Your task to perform on an android device: open app "Upside-Cash back on gas & food" (install if not already installed) and go to login screen Image 0: 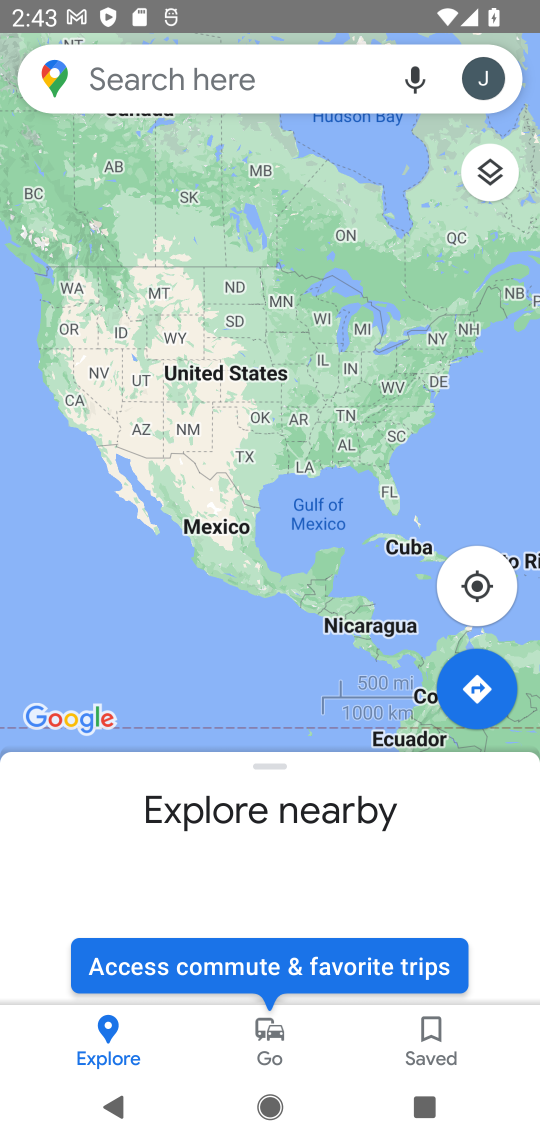
Step 0: press home button
Your task to perform on an android device: open app "Upside-Cash back on gas & food" (install if not already installed) and go to login screen Image 1: 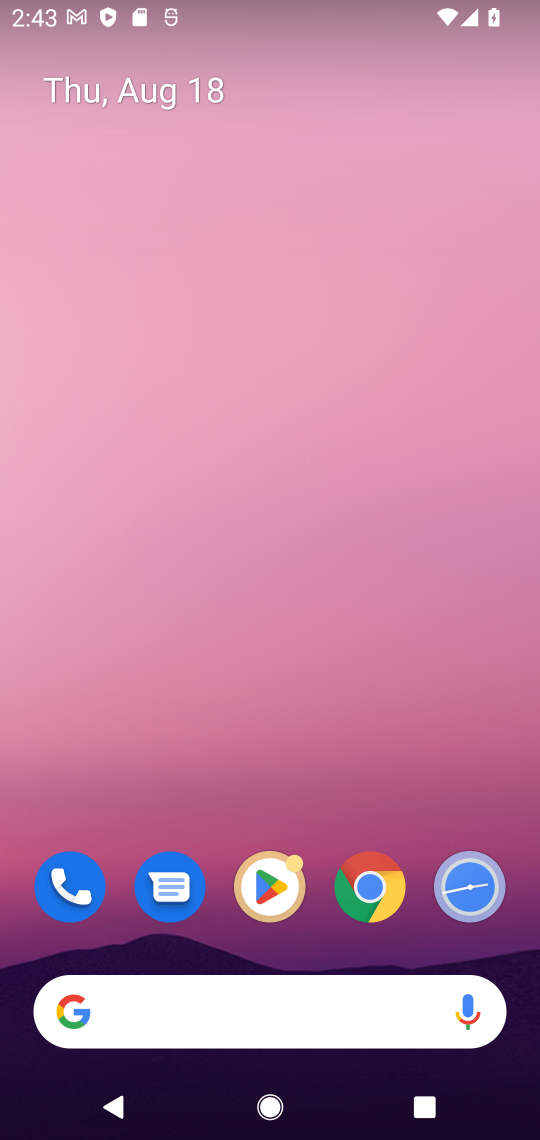
Step 1: click (259, 880)
Your task to perform on an android device: open app "Upside-Cash back on gas & food" (install if not already installed) and go to login screen Image 2: 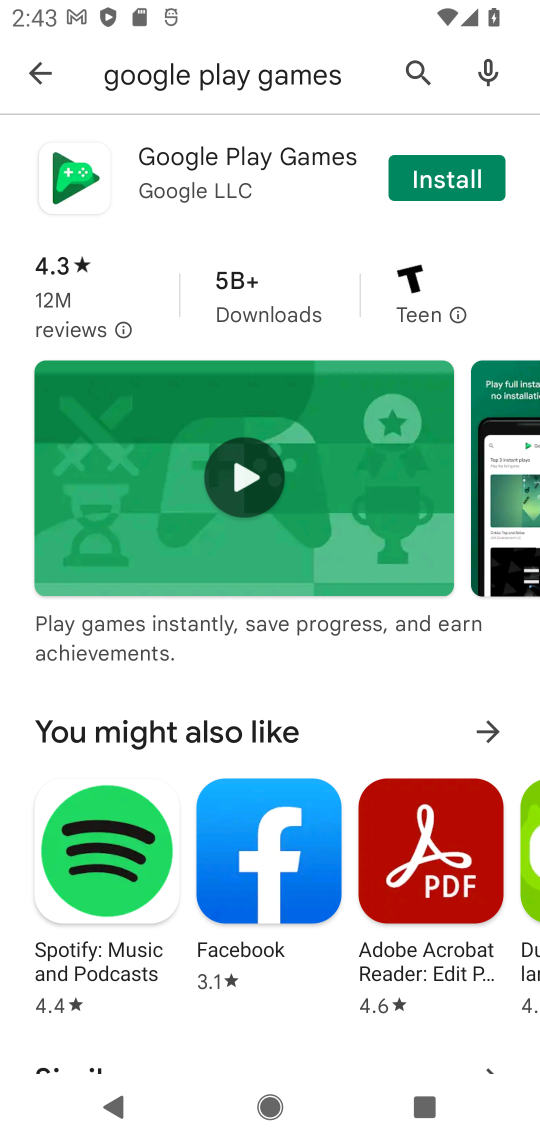
Step 2: click (416, 77)
Your task to perform on an android device: open app "Upside-Cash back on gas & food" (install if not already installed) and go to login screen Image 3: 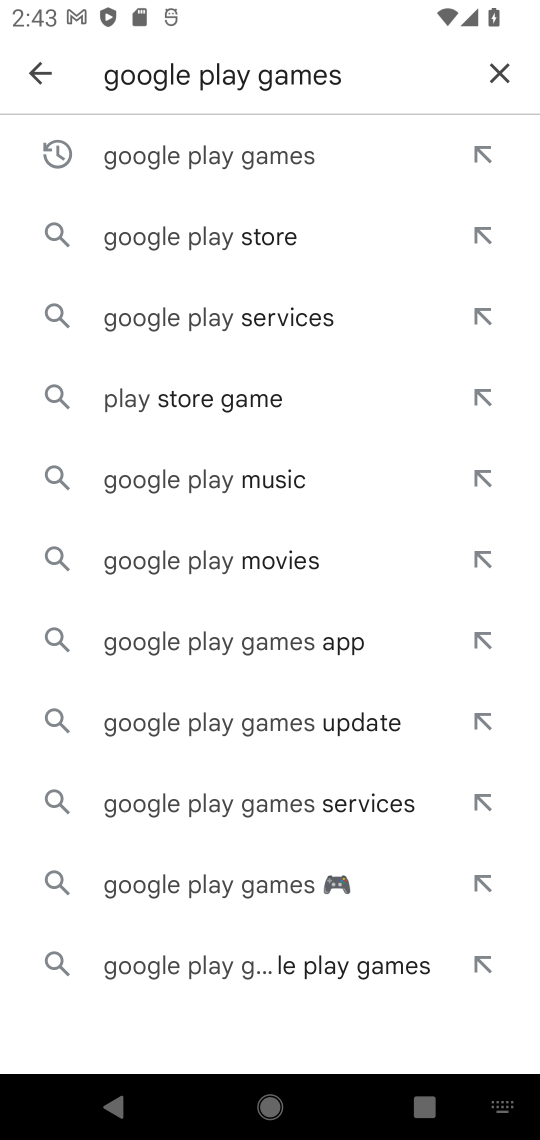
Step 3: click (496, 68)
Your task to perform on an android device: open app "Upside-Cash back on gas & food" (install if not already installed) and go to login screen Image 4: 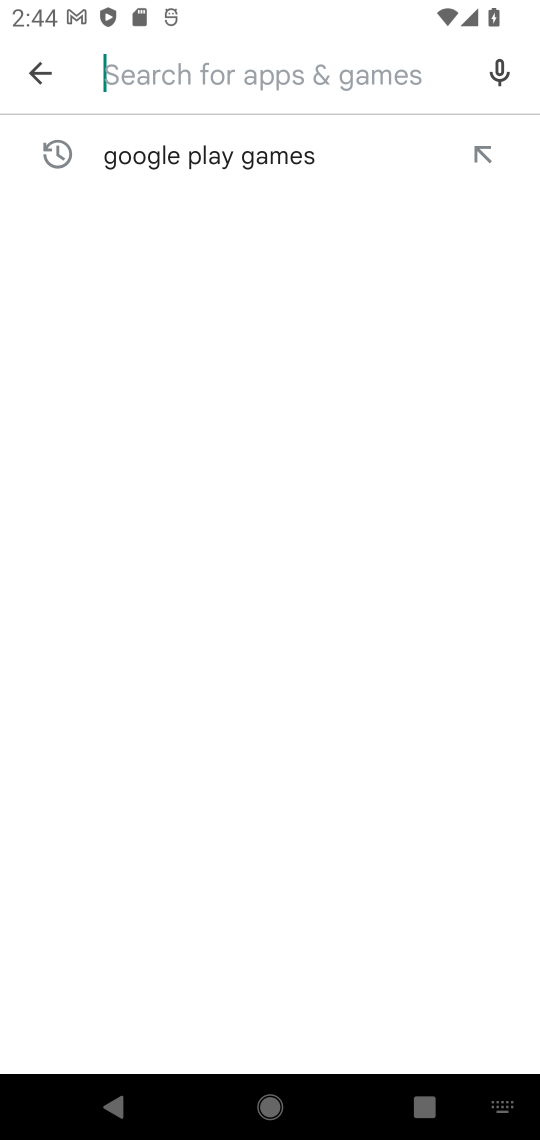
Step 4: type "Upside-Cash back on gas & food"
Your task to perform on an android device: open app "Upside-Cash back on gas & food" (install if not already installed) and go to login screen Image 5: 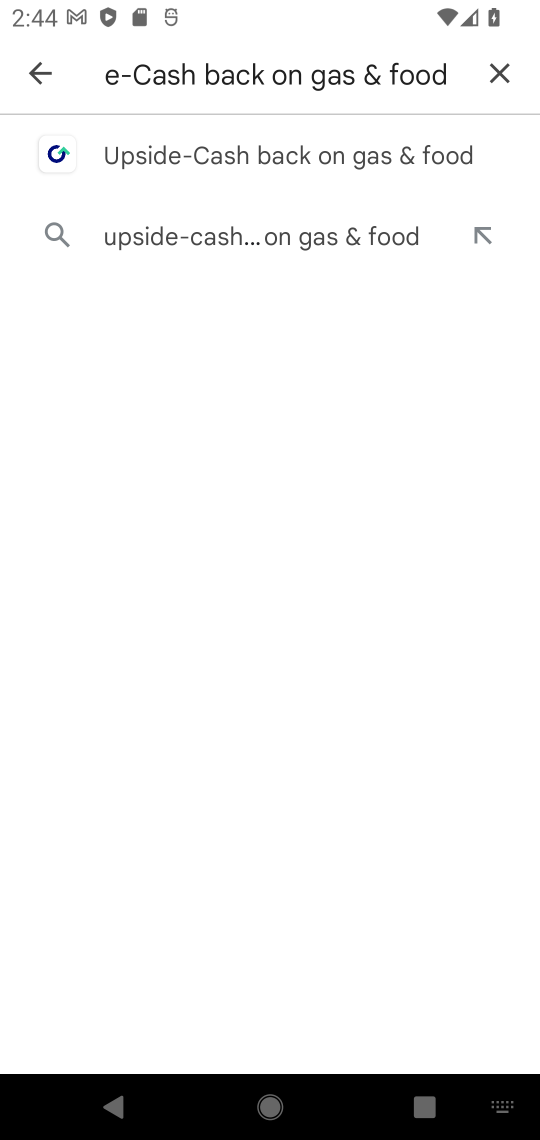
Step 5: click (129, 153)
Your task to perform on an android device: open app "Upside-Cash back on gas & food" (install if not already installed) and go to login screen Image 6: 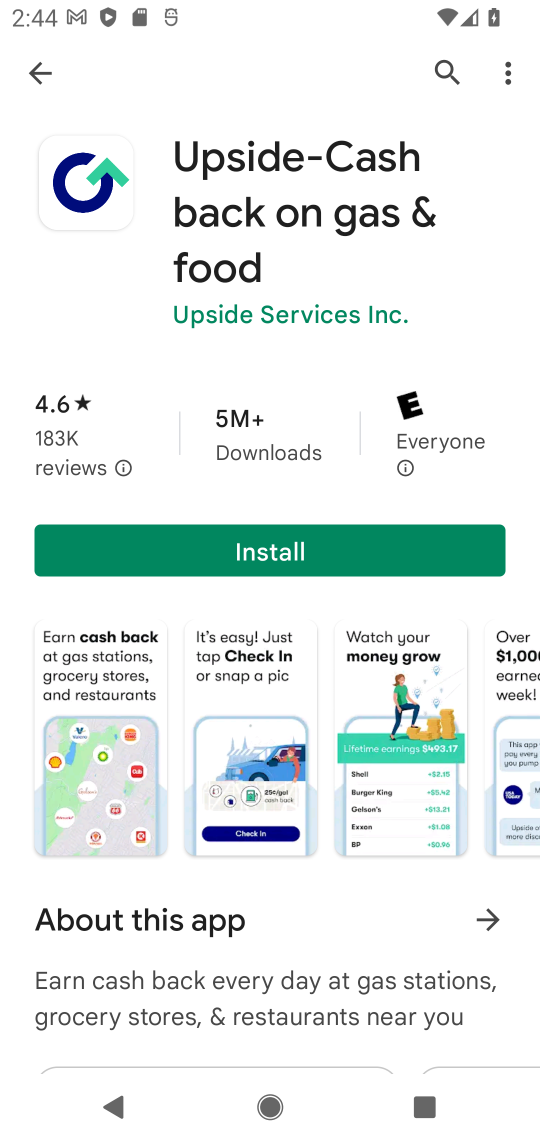
Step 6: click (247, 545)
Your task to perform on an android device: open app "Upside-Cash back on gas & food" (install if not already installed) and go to login screen Image 7: 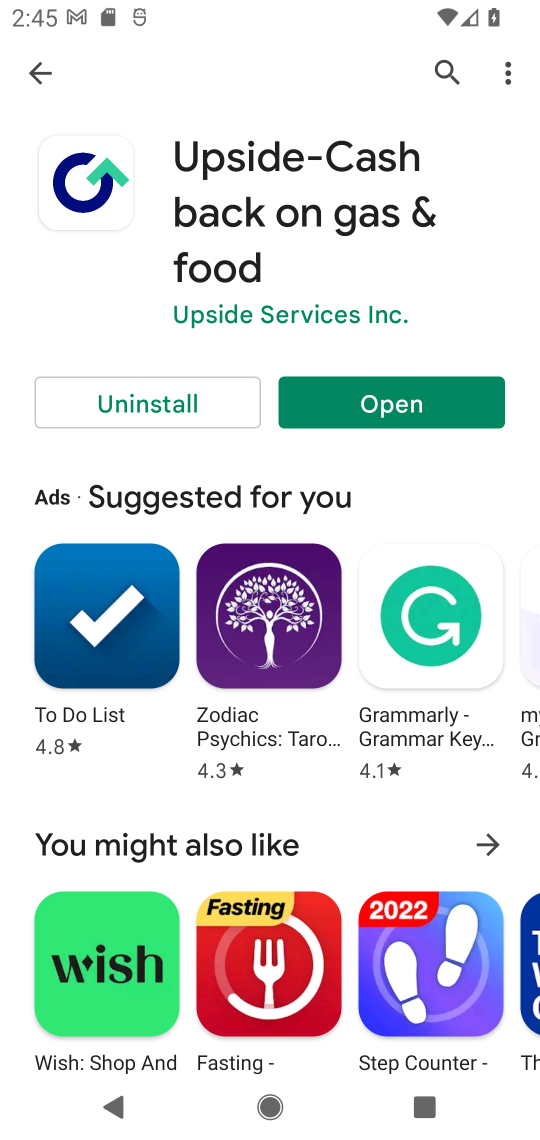
Step 7: click (341, 425)
Your task to perform on an android device: open app "Upside-Cash back on gas & food" (install if not already installed) and go to login screen Image 8: 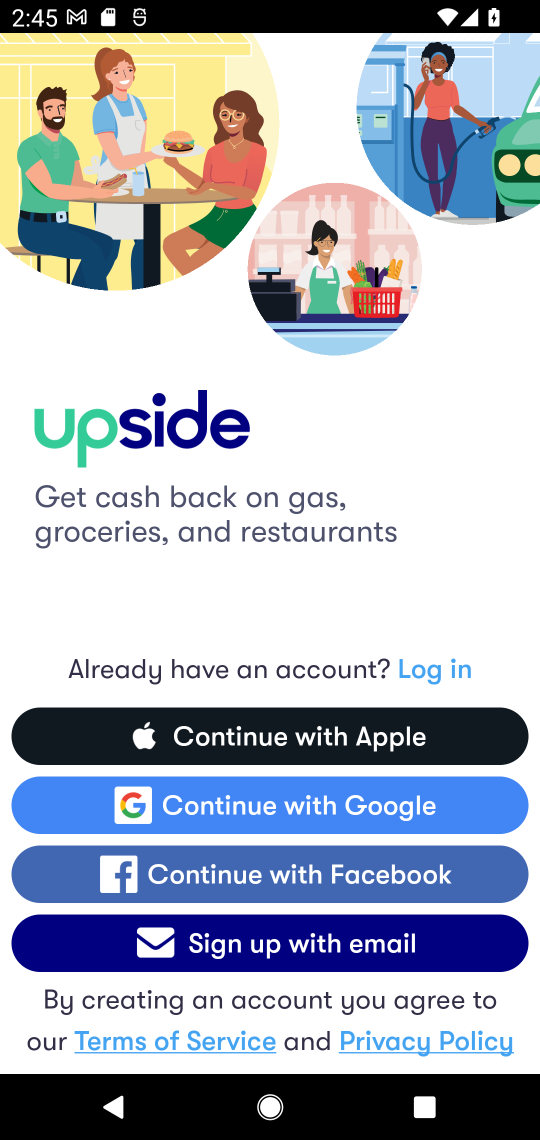
Step 8: click (310, 801)
Your task to perform on an android device: open app "Upside-Cash back on gas & food" (install if not already installed) and go to login screen Image 9: 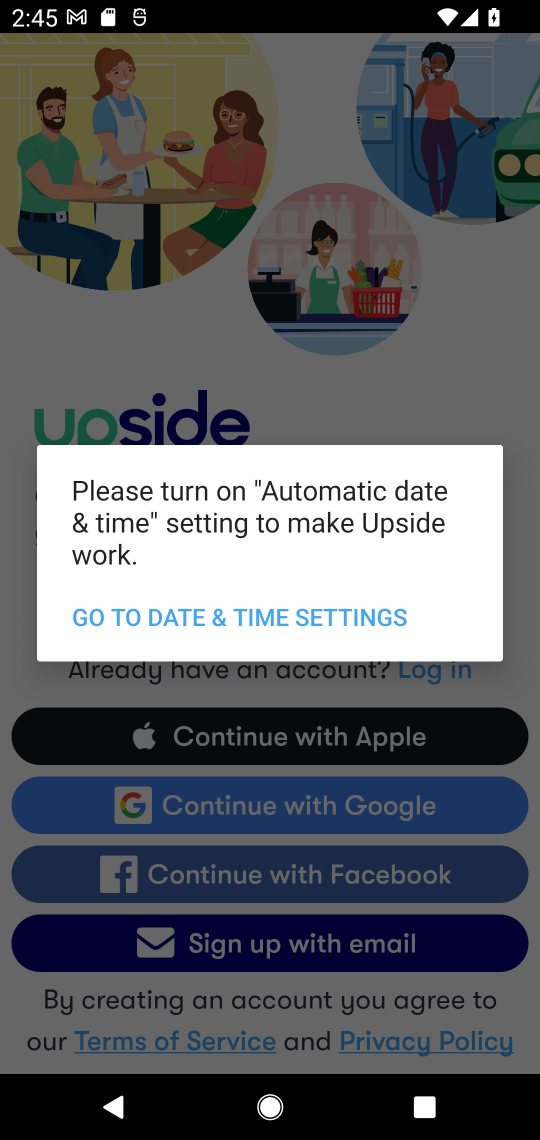
Step 9: click (253, 626)
Your task to perform on an android device: open app "Upside-Cash back on gas & food" (install if not already installed) and go to login screen Image 10: 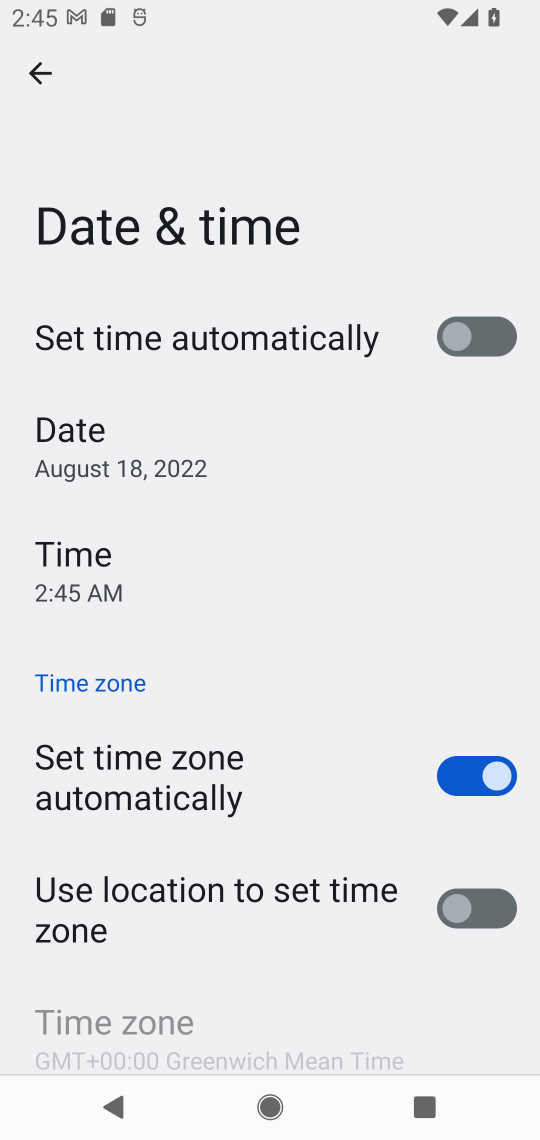
Step 10: click (433, 342)
Your task to perform on an android device: open app "Upside-Cash back on gas & food" (install if not already installed) and go to login screen Image 11: 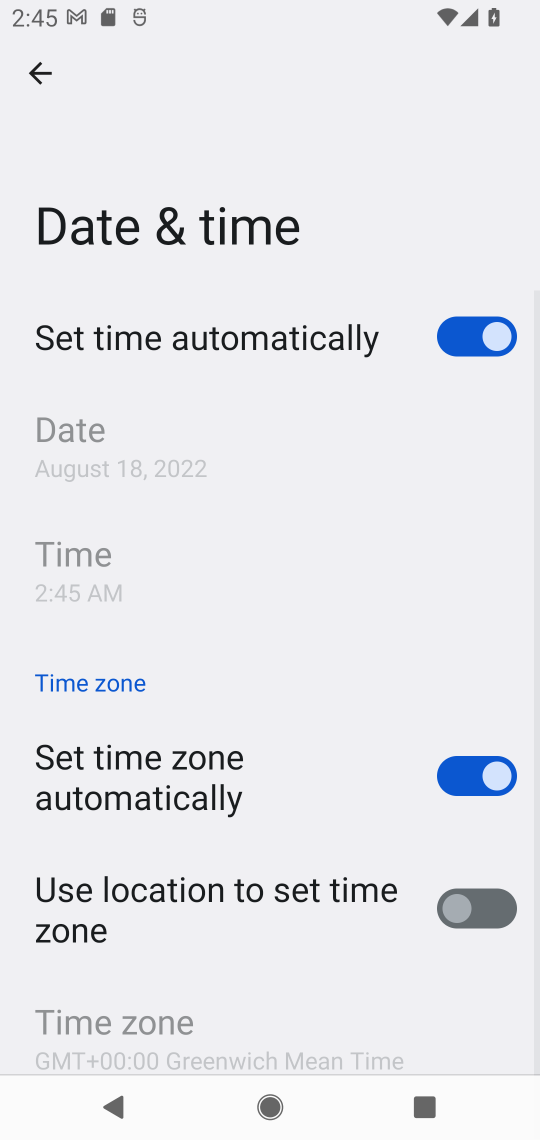
Step 11: click (44, 69)
Your task to perform on an android device: open app "Upside-Cash back on gas & food" (install if not already installed) and go to login screen Image 12: 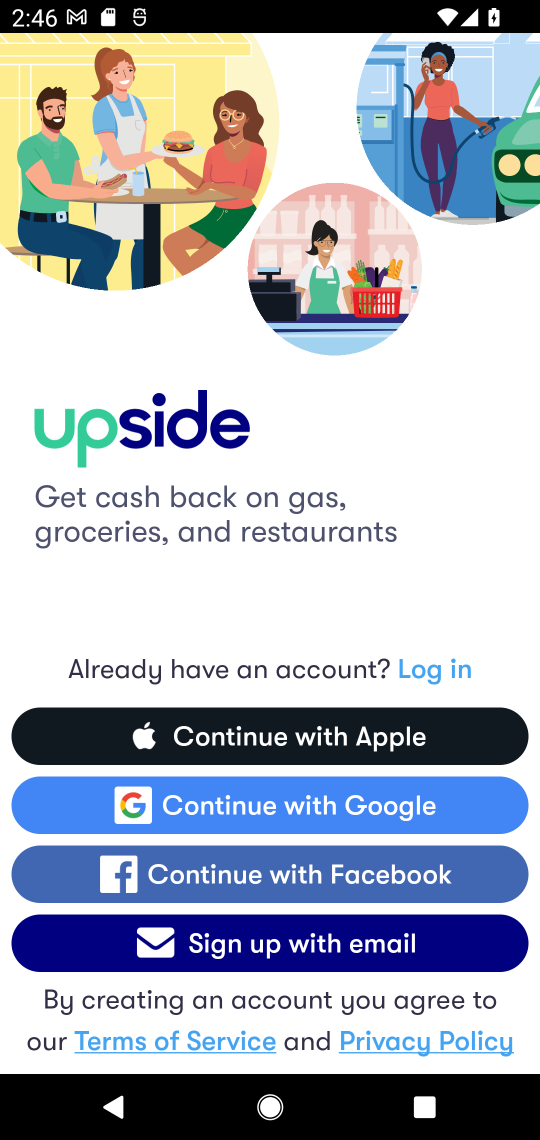
Step 12: click (280, 801)
Your task to perform on an android device: open app "Upside-Cash back on gas & food" (install if not already installed) and go to login screen Image 13: 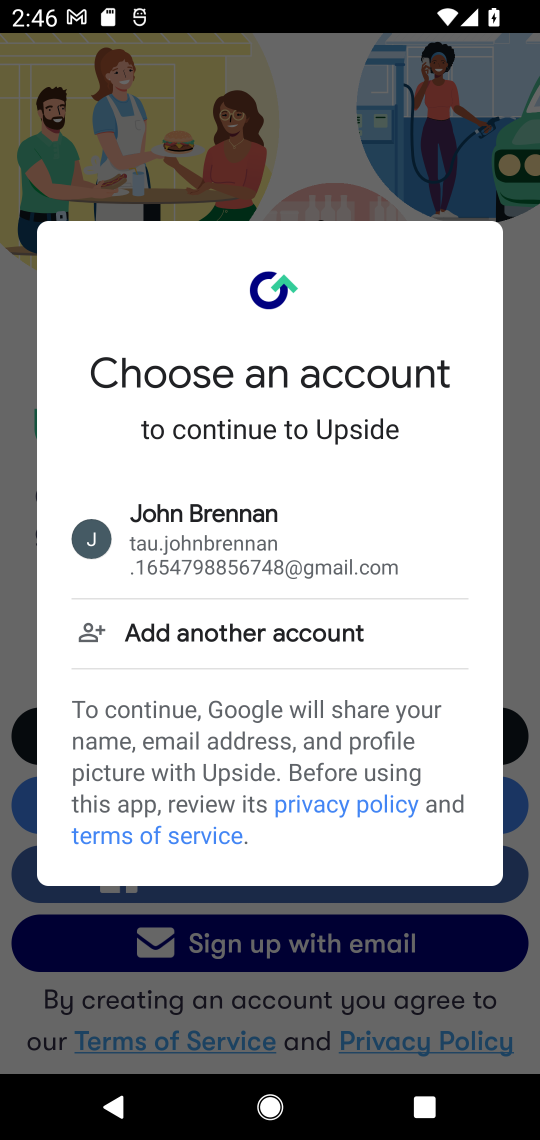
Step 13: click (214, 555)
Your task to perform on an android device: open app "Upside-Cash back on gas & food" (install if not already installed) and go to login screen Image 14: 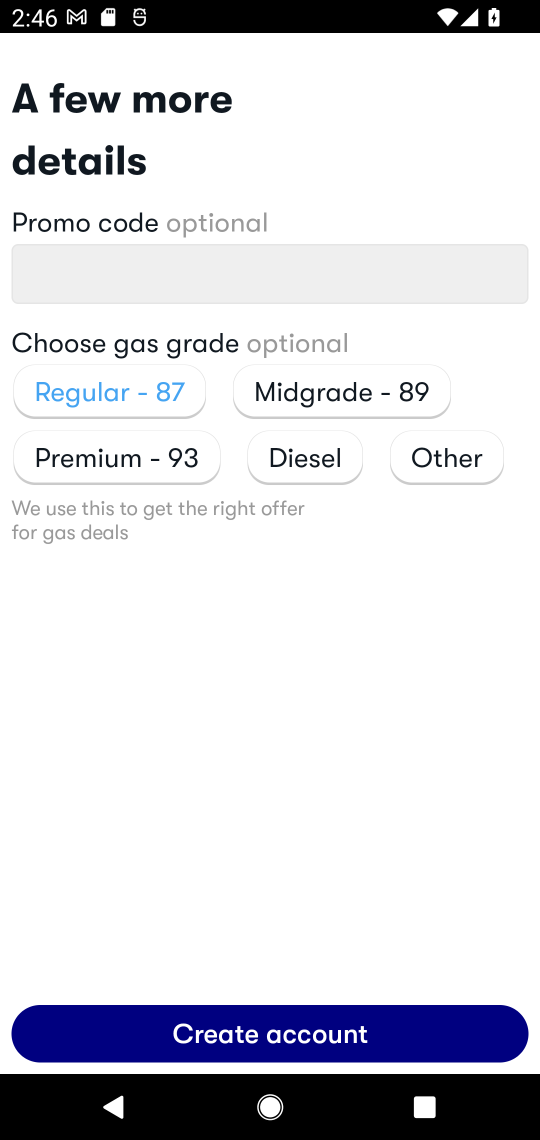
Step 14: task complete